Your task to perform on an android device: Check the weather Image 0: 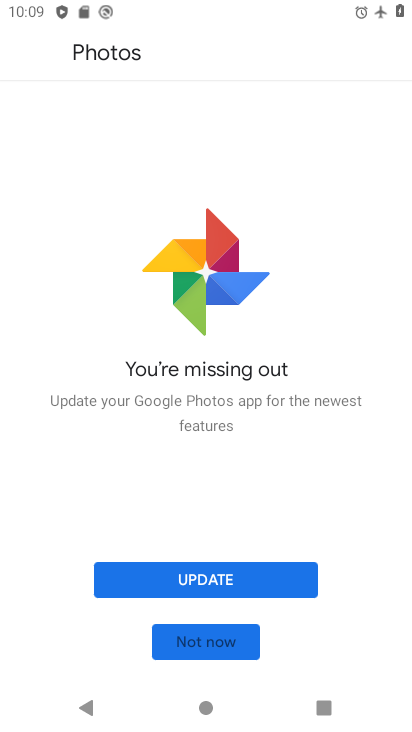
Step 0: press home button
Your task to perform on an android device: Check the weather Image 1: 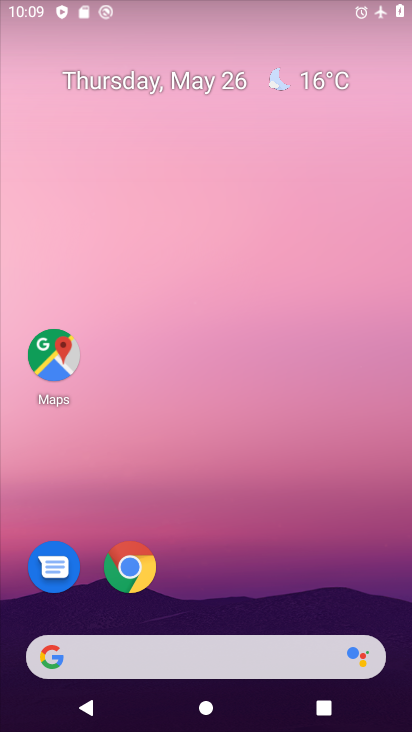
Step 1: task complete